Your task to perform on an android device: Open CNN.com Image 0: 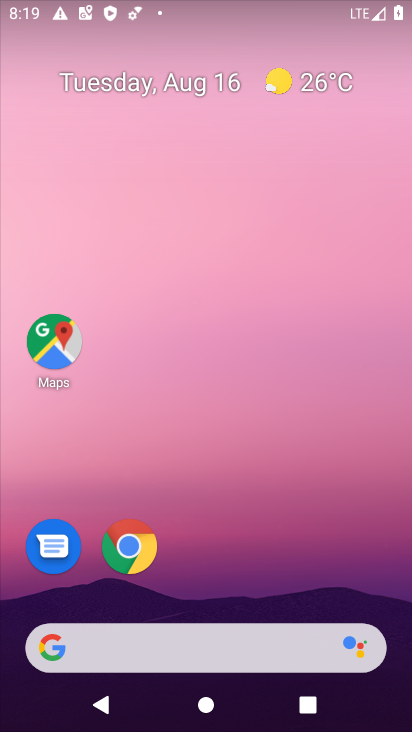
Step 0: click (191, 654)
Your task to perform on an android device: Open CNN.com Image 1: 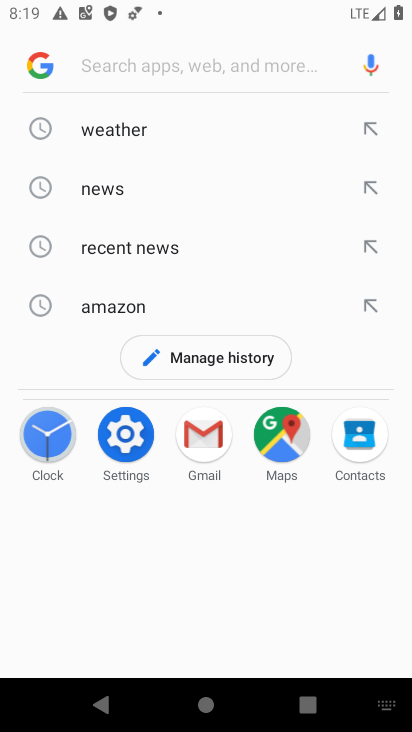
Step 1: type "cnn.com"
Your task to perform on an android device: Open CNN.com Image 2: 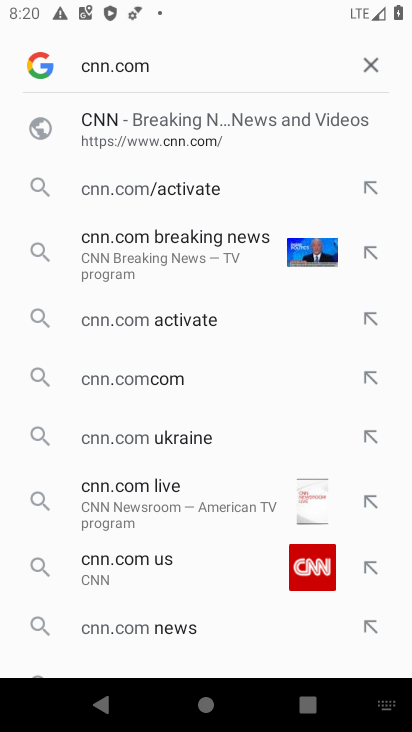
Step 2: click (233, 119)
Your task to perform on an android device: Open CNN.com Image 3: 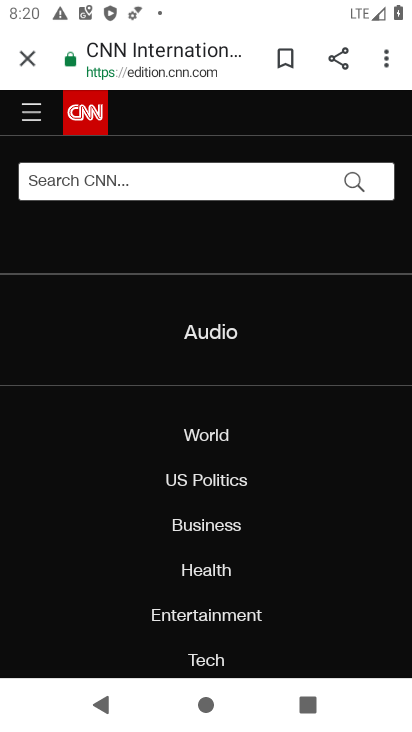
Step 3: task complete